Your task to perform on an android device: open app "Microsoft Outlook" Image 0: 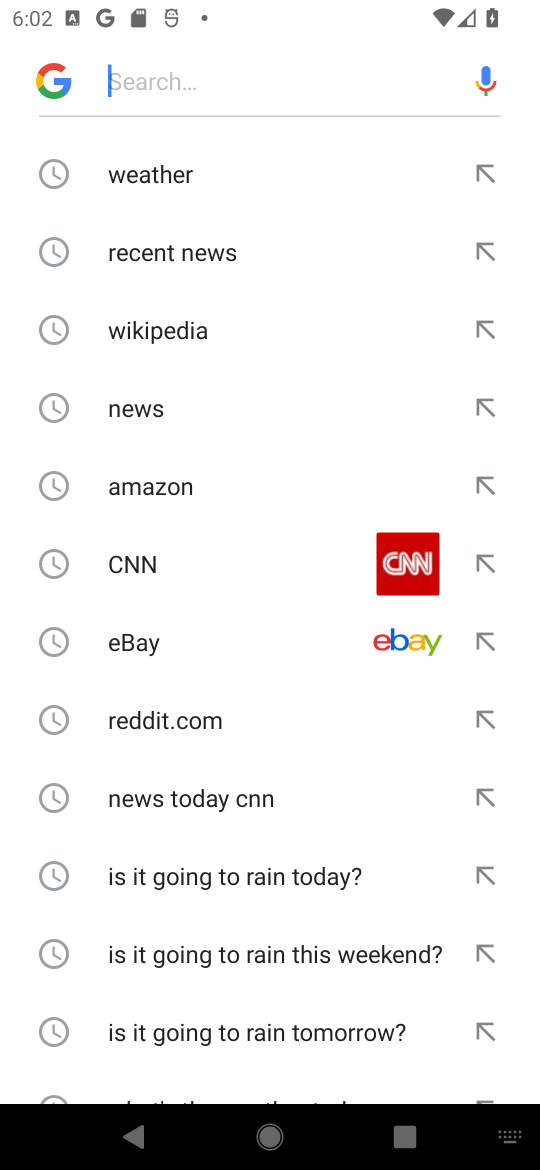
Step 0: click (188, 75)
Your task to perform on an android device: open app "Microsoft Outlook" Image 1: 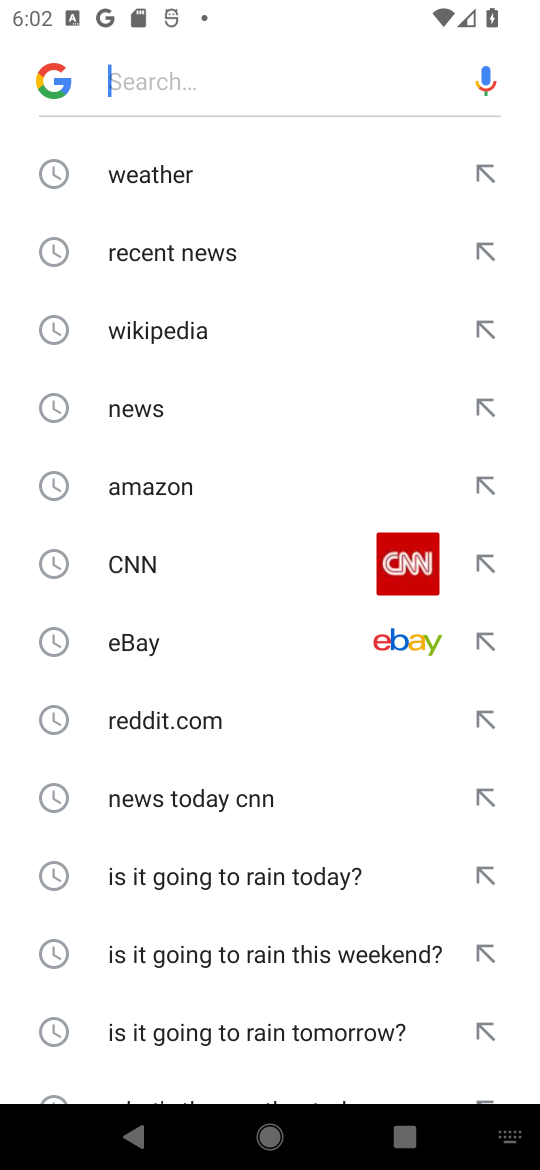
Step 1: type "Microsoft Outlook "
Your task to perform on an android device: open app "Microsoft Outlook" Image 2: 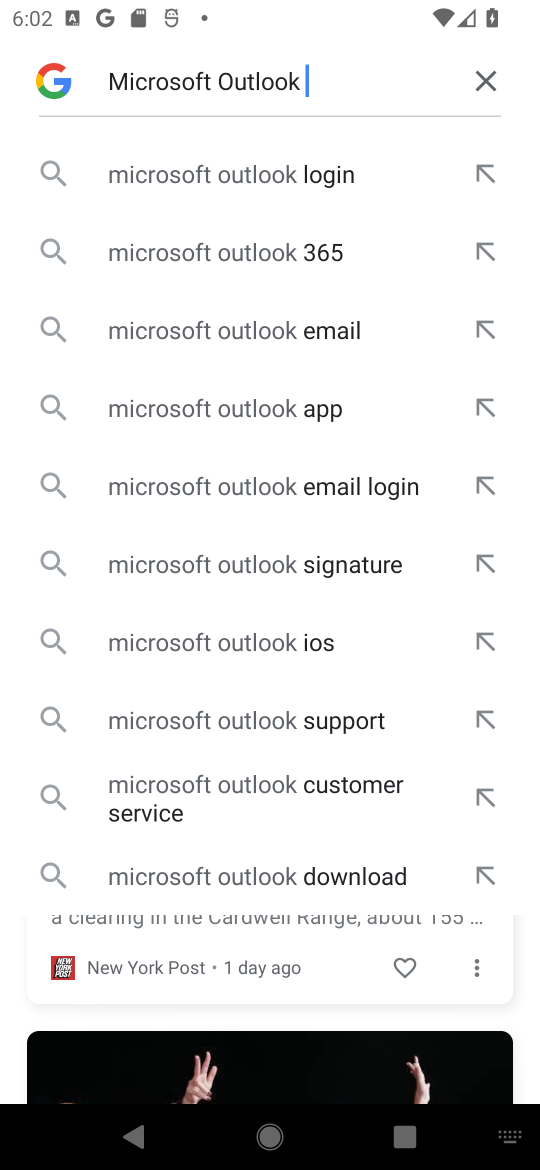
Step 2: press home button
Your task to perform on an android device: open app "Microsoft Outlook" Image 3: 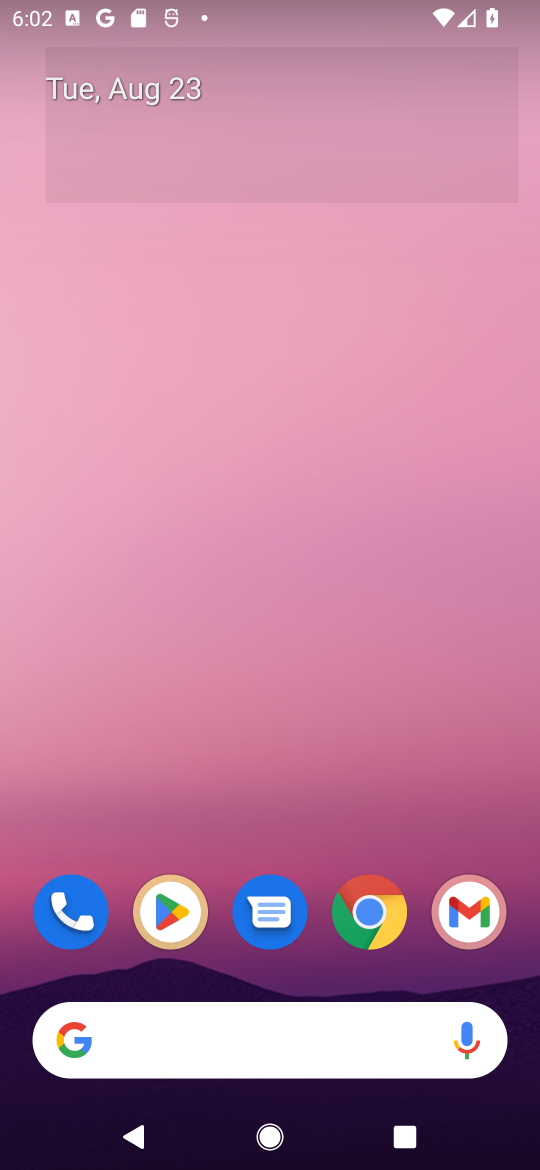
Step 3: click (177, 920)
Your task to perform on an android device: open app "Microsoft Outlook" Image 4: 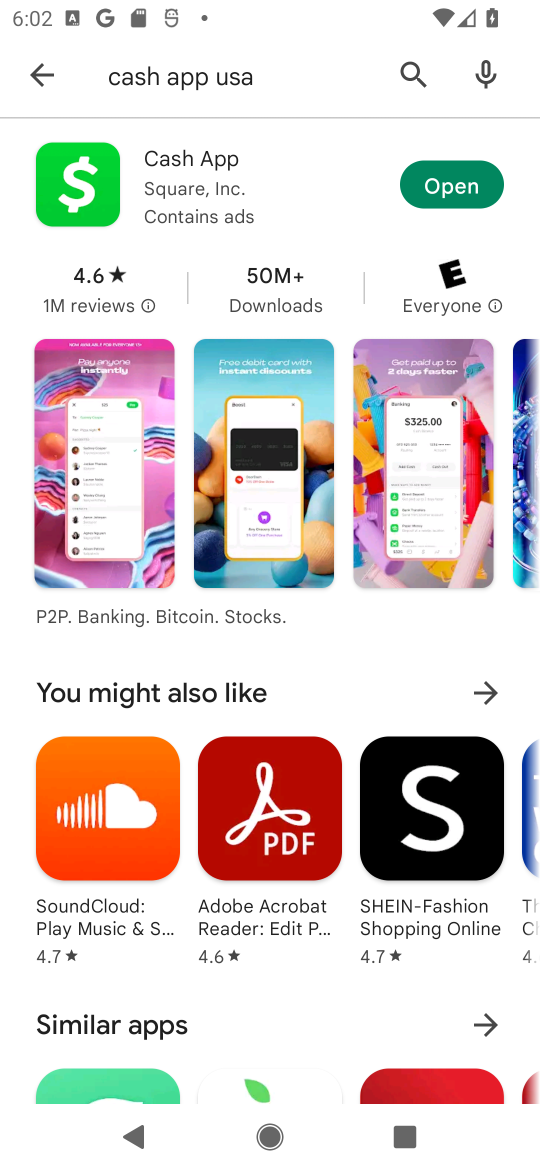
Step 4: click (61, 62)
Your task to perform on an android device: open app "Microsoft Outlook" Image 5: 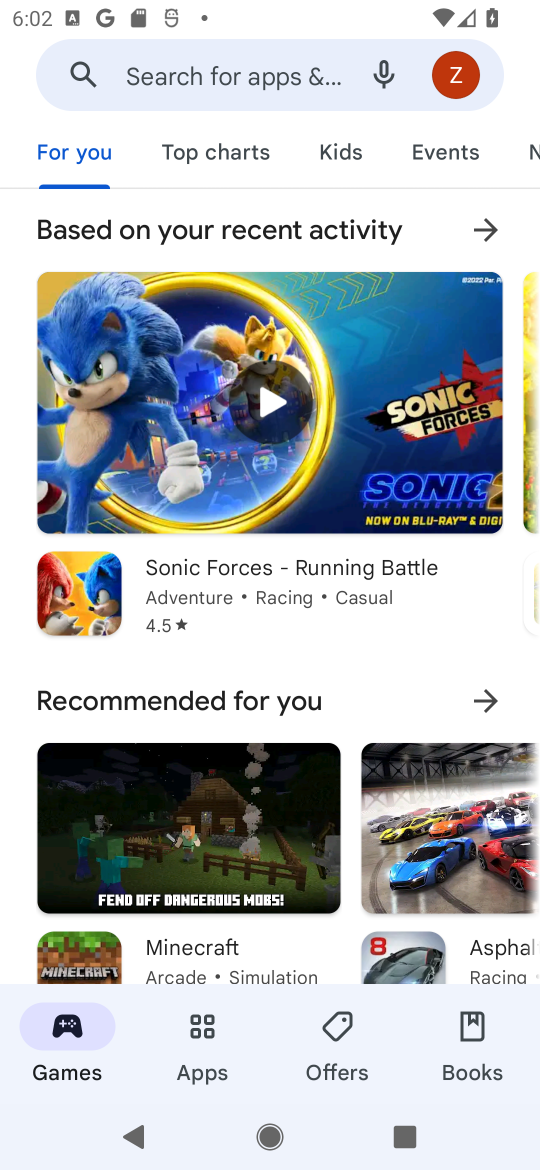
Step 5: click (249, 58)
Your task to perform on an android device: open app "Microsoft Outlook" Image 6: 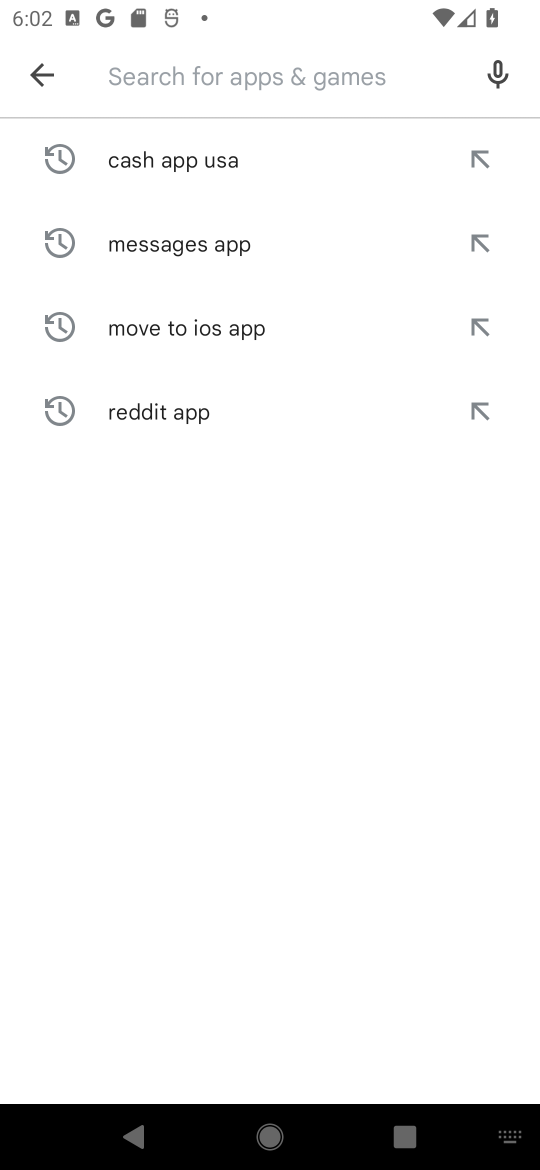
Step 6: type "Microsoft Outlook "
Your task to perform on an android device: open app "Microsoft Outlook" Image 7: 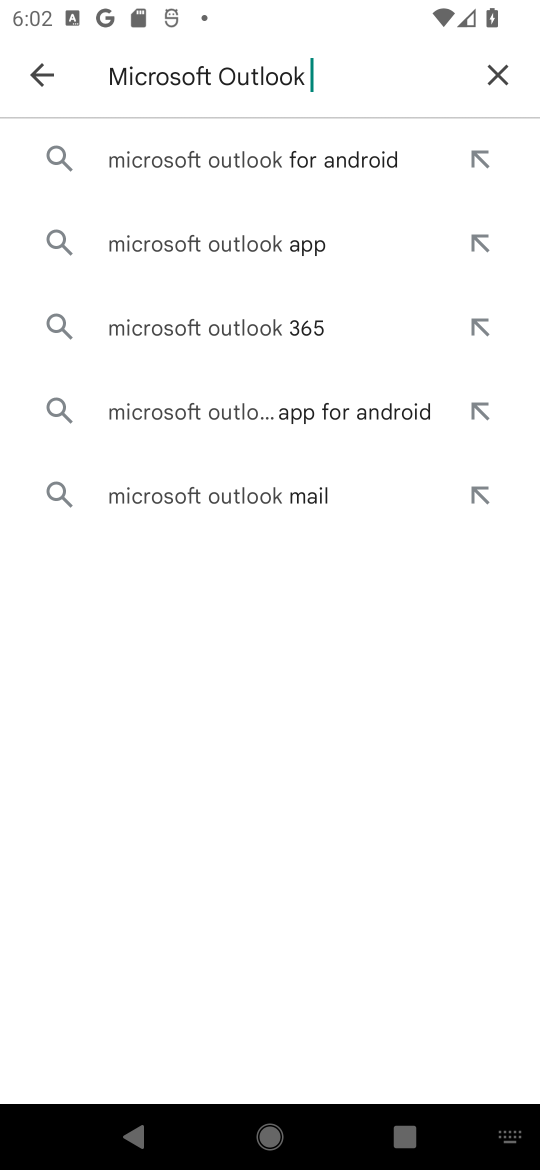
Step 7: click (261, 145)
Your task to perform on an android device: open app "Microsoft Outlook" Image 8: 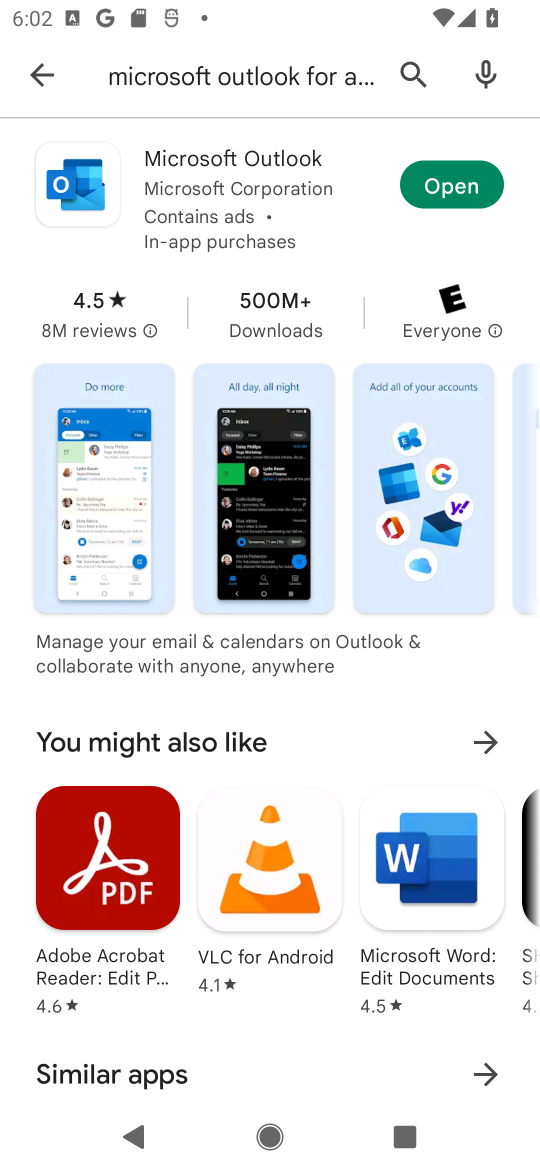
Step 8: click (453, 170)
Your task to perform on an android device: open app "Microsoft Outlook" Image 9: 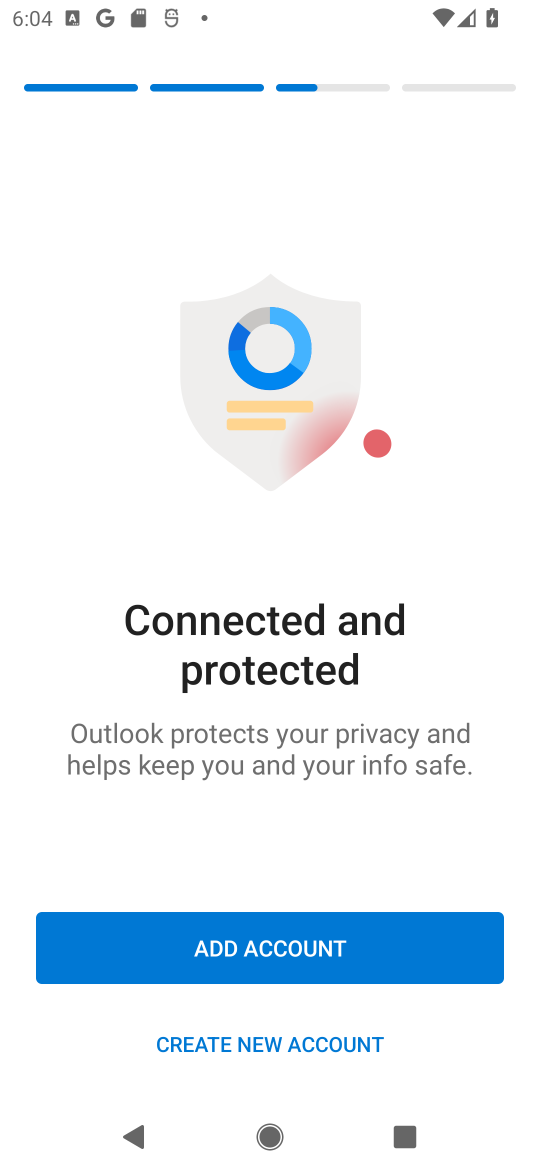
Step 9: task complete